Your task to perform on an android device: remove spam from my inbox in the gmail app Image 0: 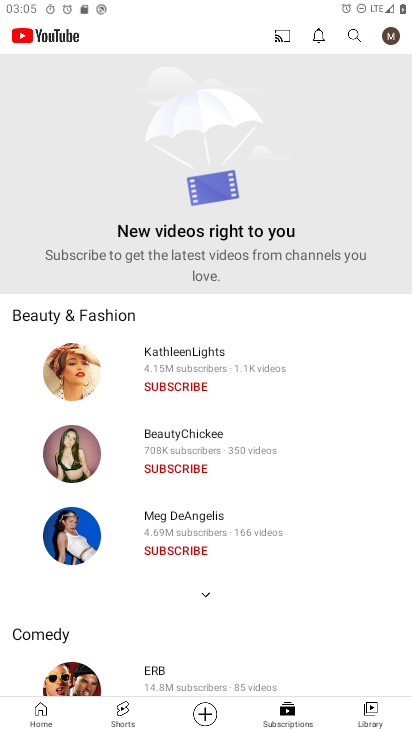
Step 0: press home button
Your task to perform on an android device: remove spam from my inbox in the gmail app Image 1: 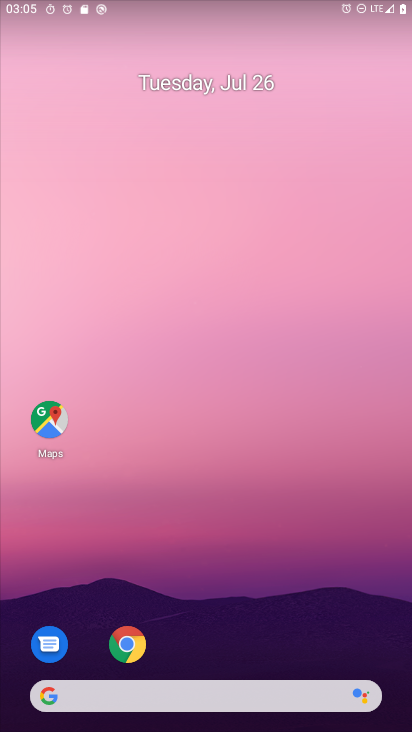
Step 1: drag from (231, 672) to (268, 44)
Your task to perform on an android device: remove spam from my inbox in the gmail app Image 2: 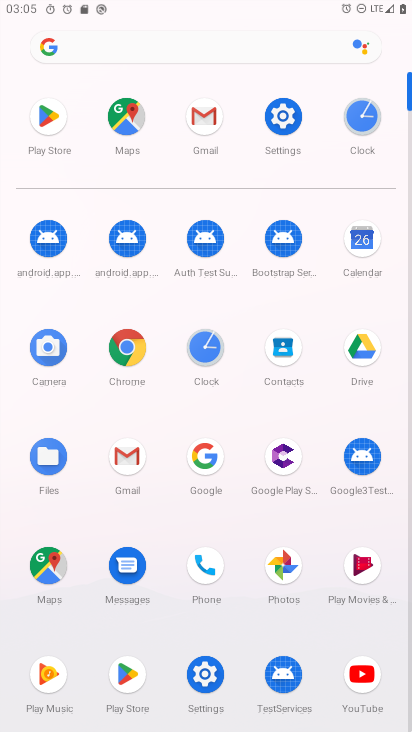
Step 2: click (117, 462)
Your task to perform on an android device: remove spam from my inbox in the gmail app Image 3: 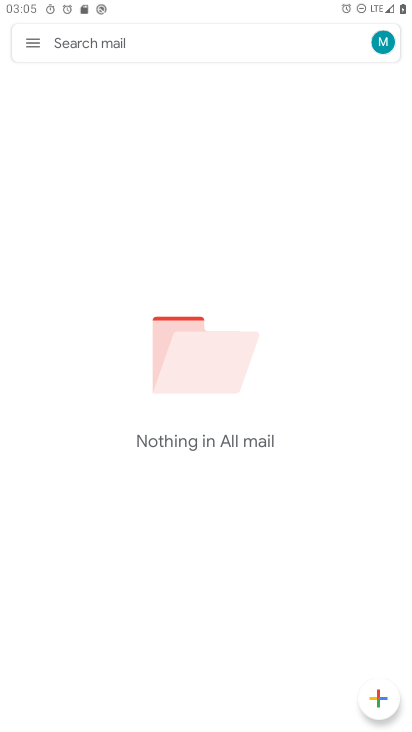
Step 3: click (30, 49)
Your task to perform on an android device: remove spam from my inbox in the gmail app Image 4: 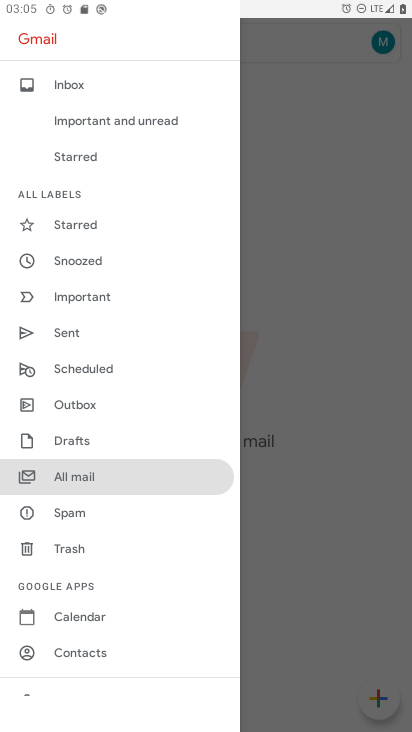
Step 4: click (63, 514)
Your task to perform on an android device: remove spam from my inbox in the gmail app Image 5: 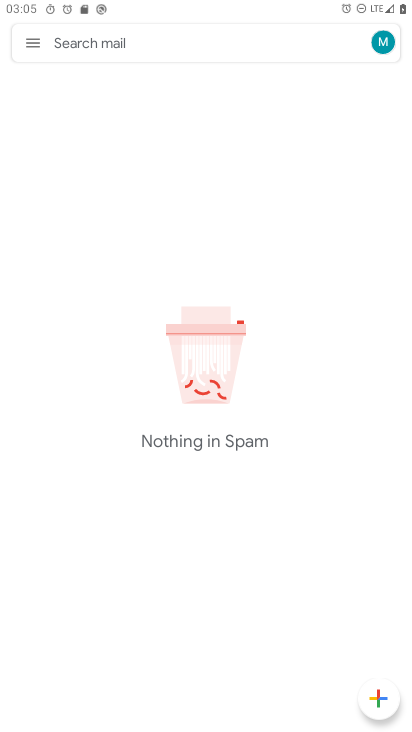
Step 5: task complete